Your task to perform on an android device: Install the Facebook app Image 0: 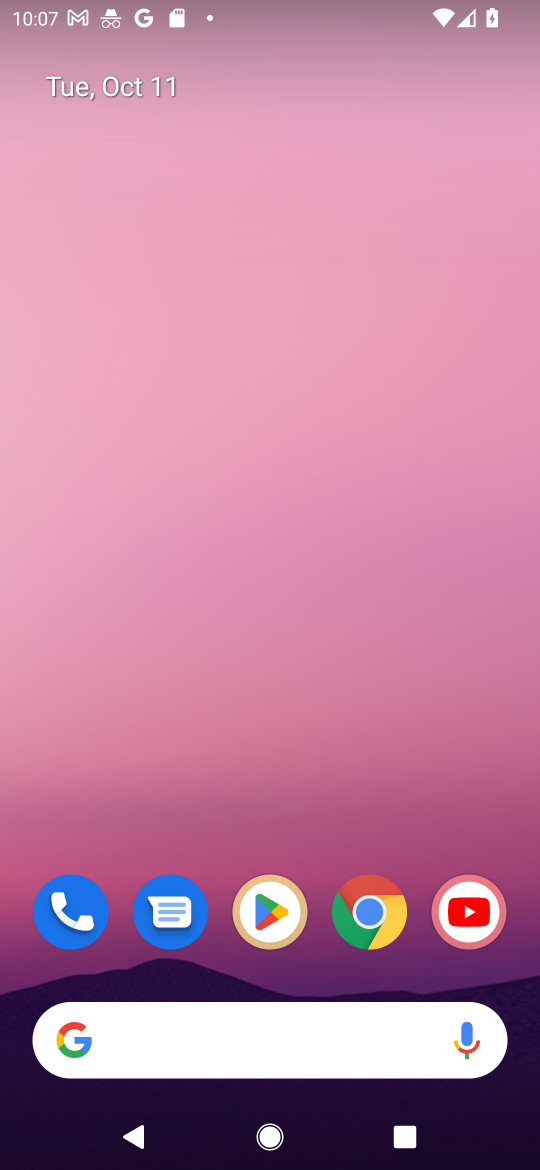
Step 0: click (372, 909)
Your task to perform on an android device: Install the Facebook app Image 1: 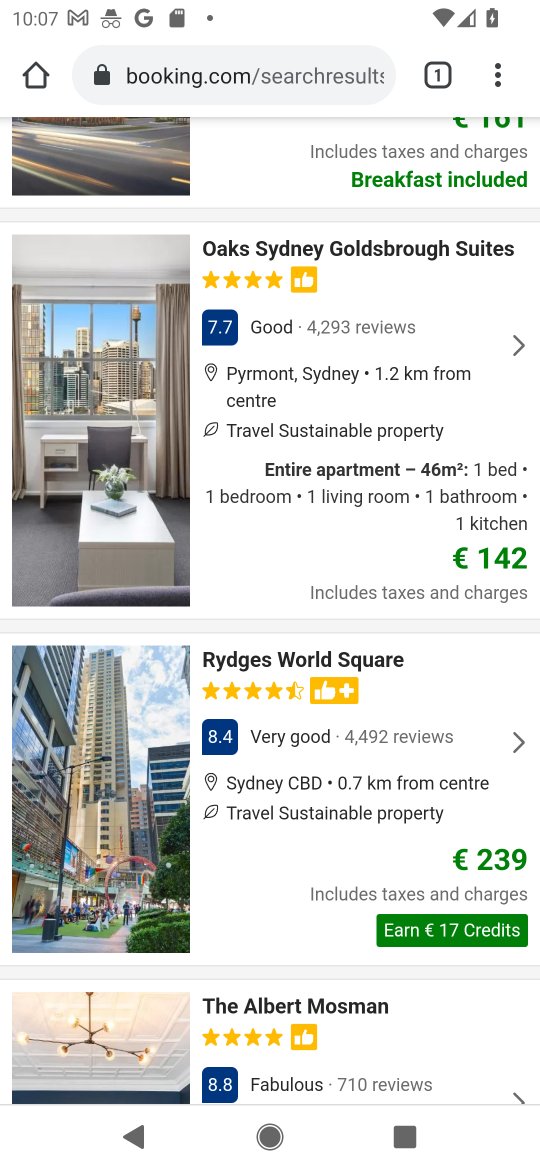
Step 1: click (276, 59)
Your task to perform on an android device: Install the Facebook app Image 2: 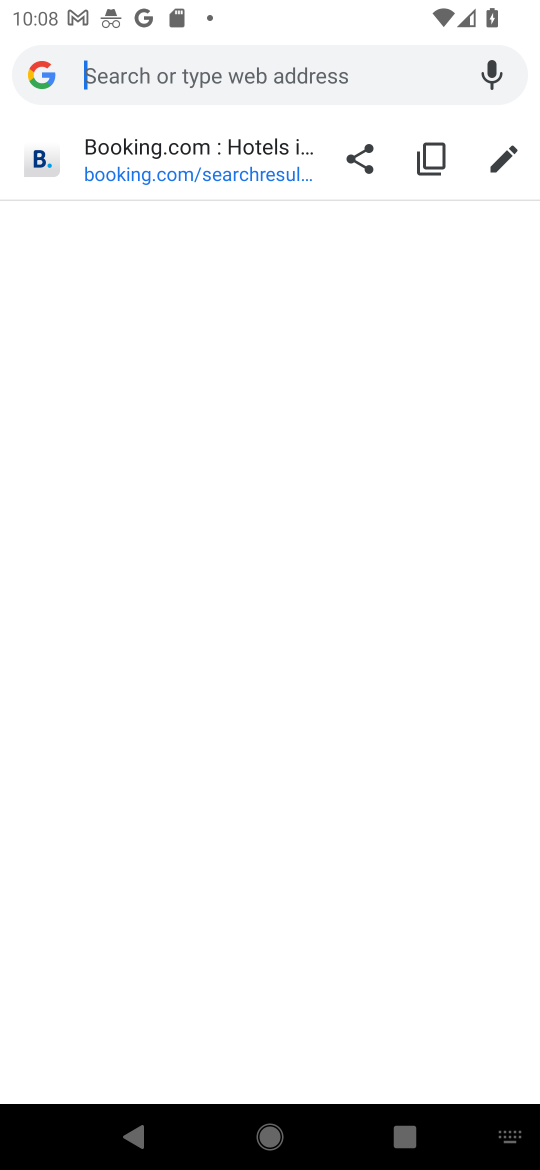
Step 2: type "facebook app"
Your task to perform on an android device: Install the Facebook app Image 3: 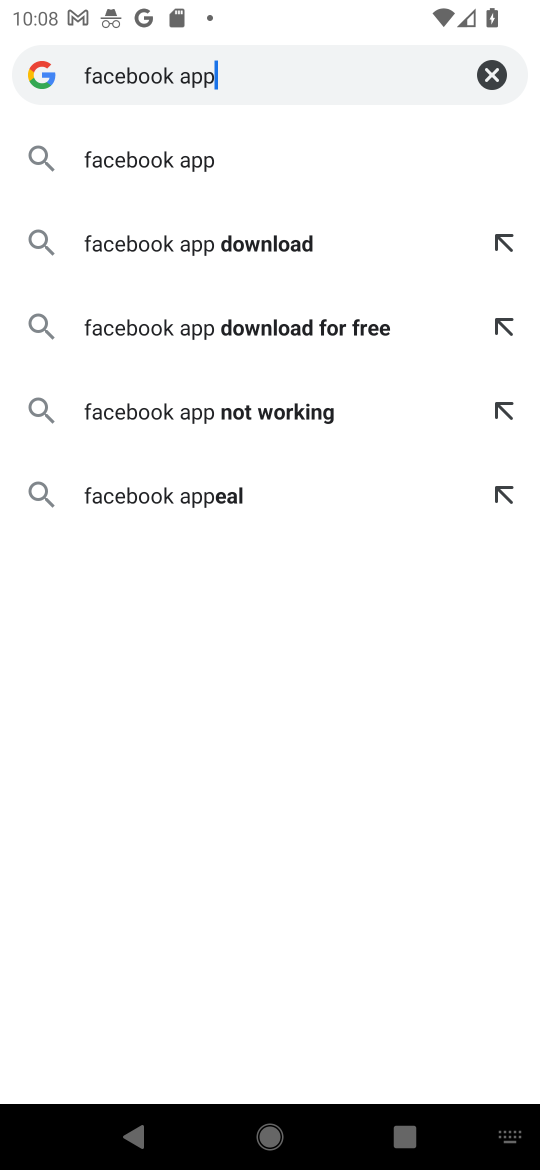
Step 3: click (140, 154)
Your task to perform on an android device: Install the Facebook app Image 4: 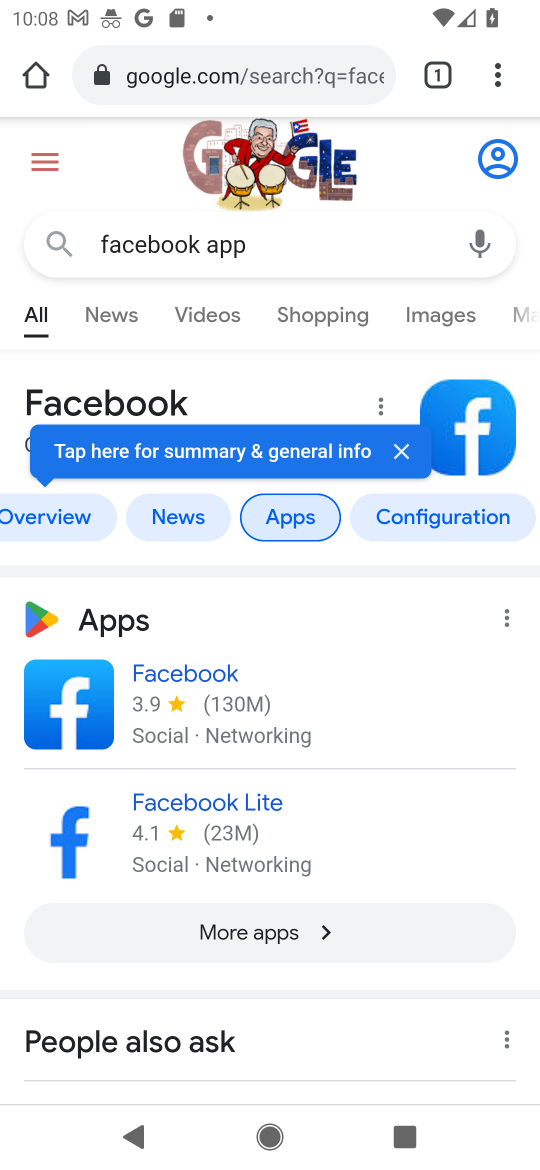
Step 4: click (170, 669)
Your task to perform on an android device: Install the Facebook app Image 5: 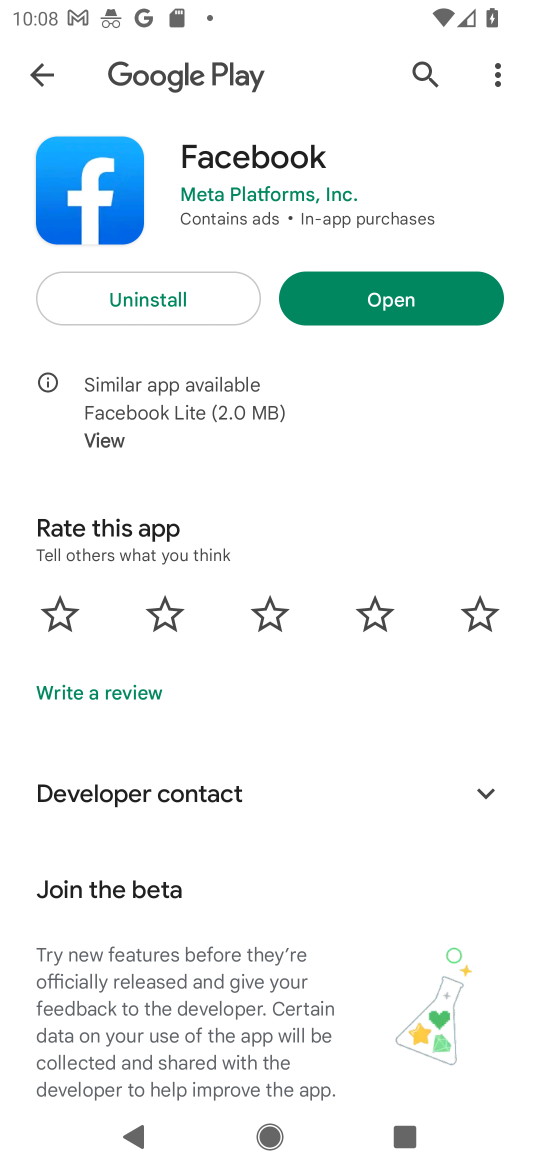
Step 5: click (387, 290)
Your task to perform on an android device: Install the Facebook app Image 6: 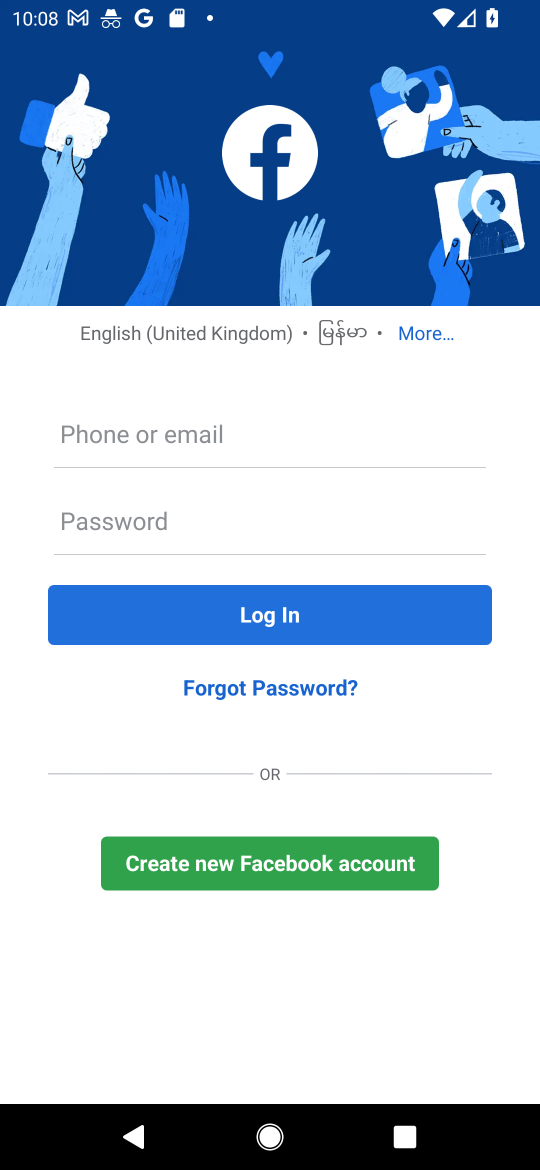
Step 6: task complete